Your task to perform on an android device: Add "bose soundlink" to the cart on target.com, then select checkout. Image 0: 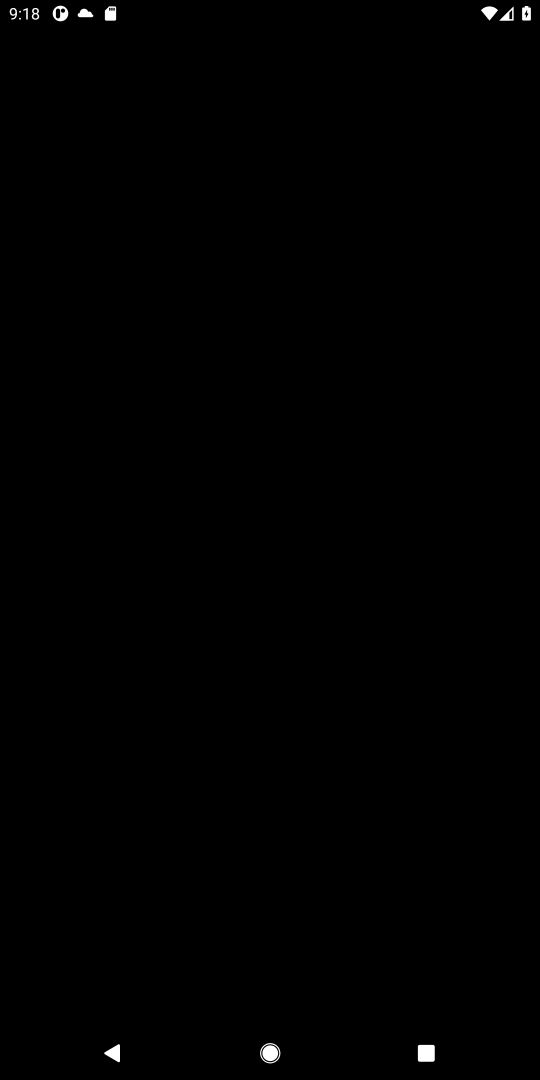
Step 0: press home button
Your task to perform on an android device: Add "bose soundlink" to the cart on target.com, then select checkout. Image 1: 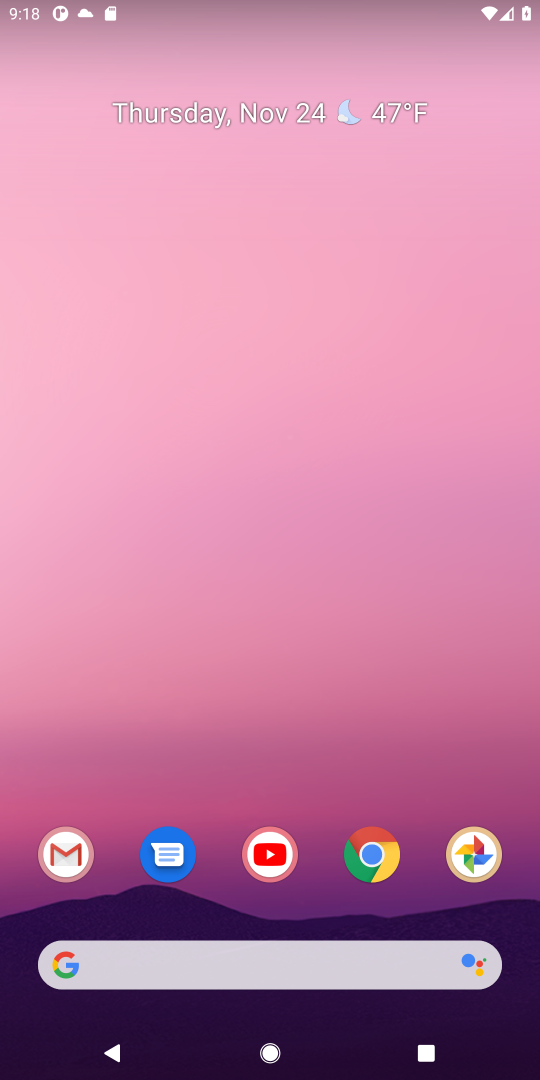
Step 1: click (372, 857)
Your task to perform on an android device: Add "bose soundlink" to the cart on target.com, then select checkout. Image 2: 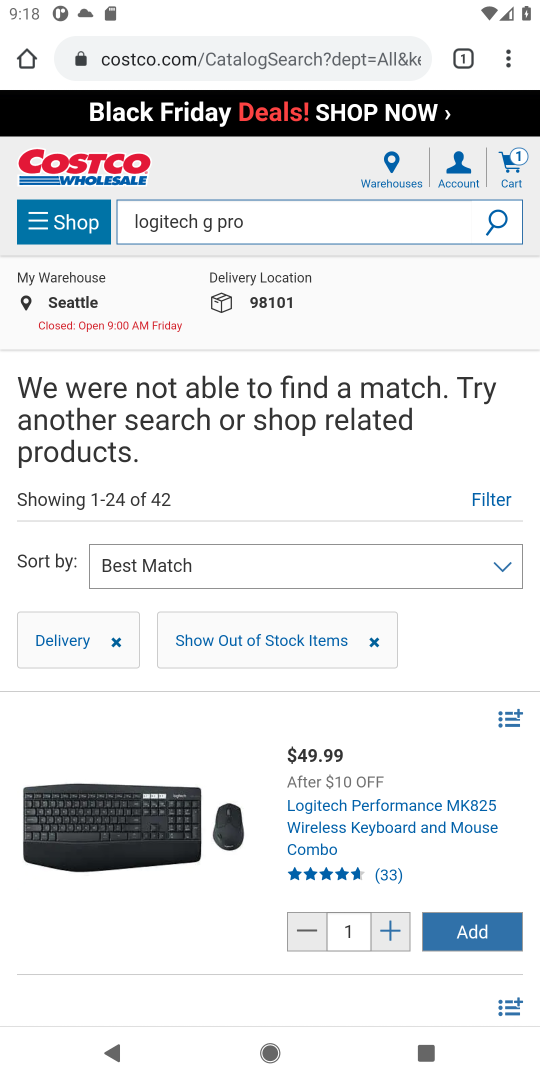
Step 2: click (165, 63)
Your task to perform on an android device: Add "bose soundlink" to the cart on target.com, then select checkout. Image 3: 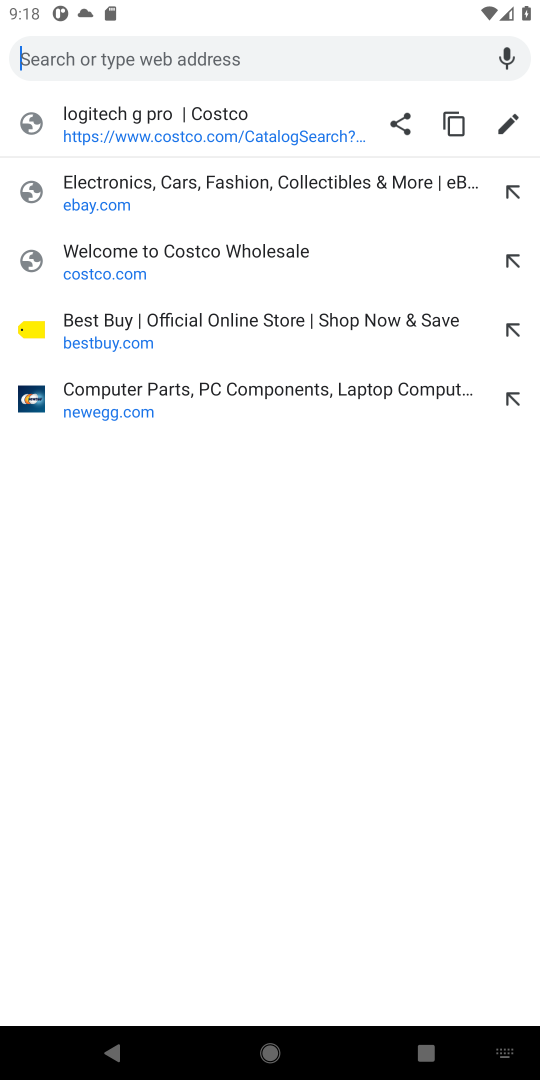
Step 3: type "target.com"
Your task to perform on an android device: Add "bose soundlink" to the cart on target.com, then select checkout. Image 4: 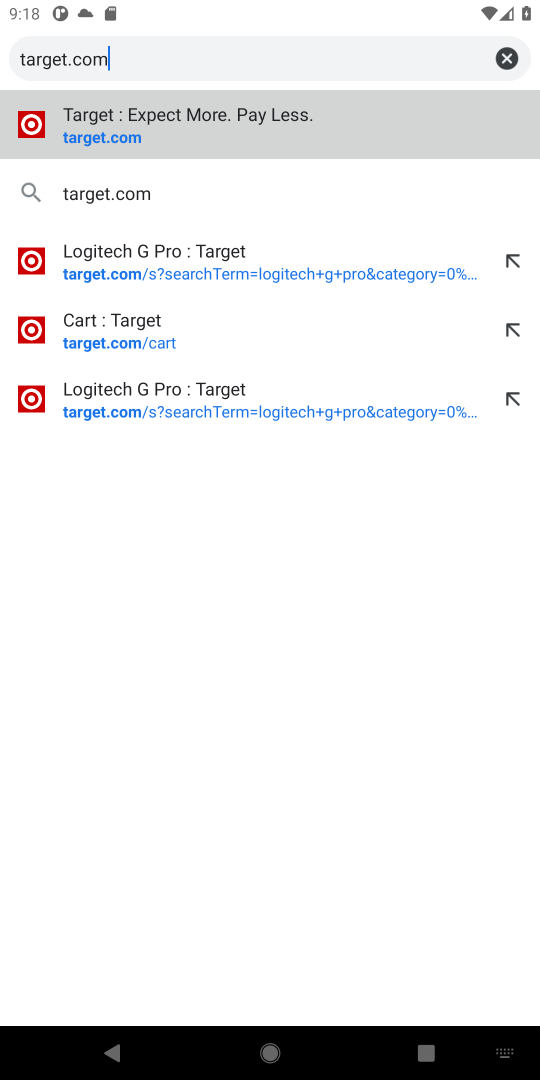
Step 4: click (87, 128)
Your task to perform on an android device: Add "bose soundlink" to the cart on target.com, then select checkout. Image 5: 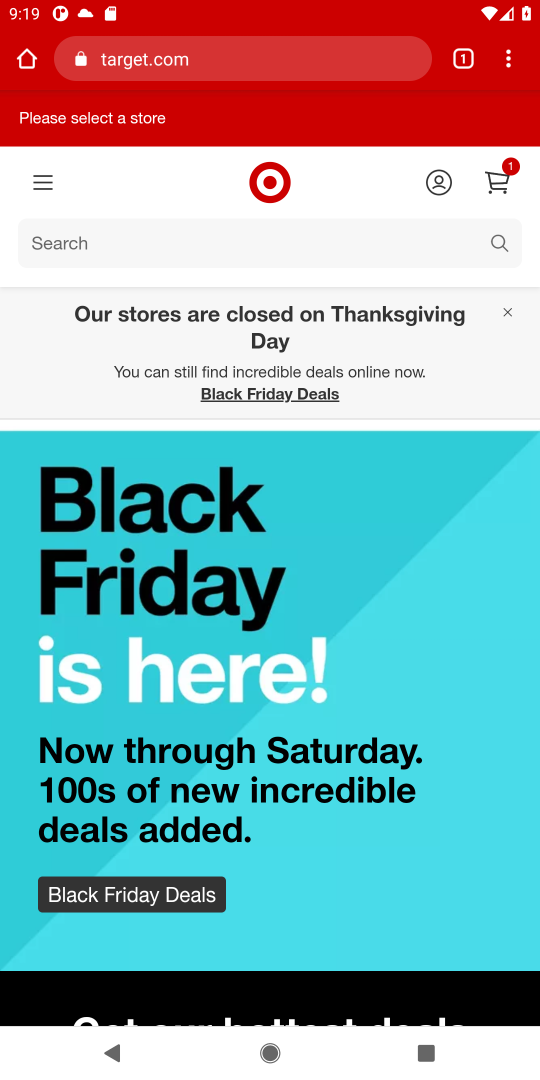
Step 5: click (498, 240)
Your task to perform on an android device: Add "bose soundlink" to the cart on target.com, then select checkout. Image 6: 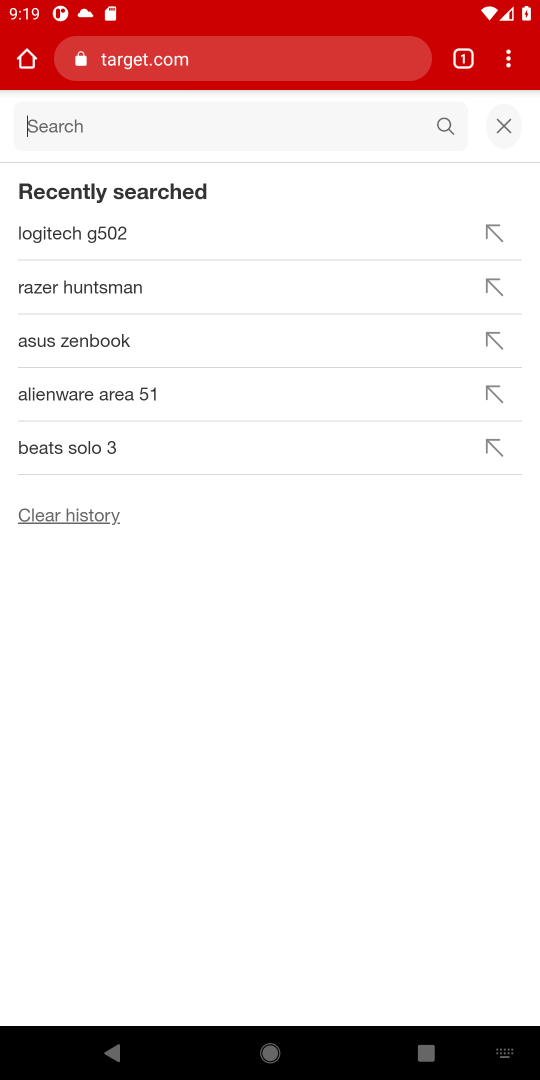
Step 6: click (498, 240)
Your task to perform on an android device: Add "bose soundlink" to the cart on target.com, then select checkout. Image 7: 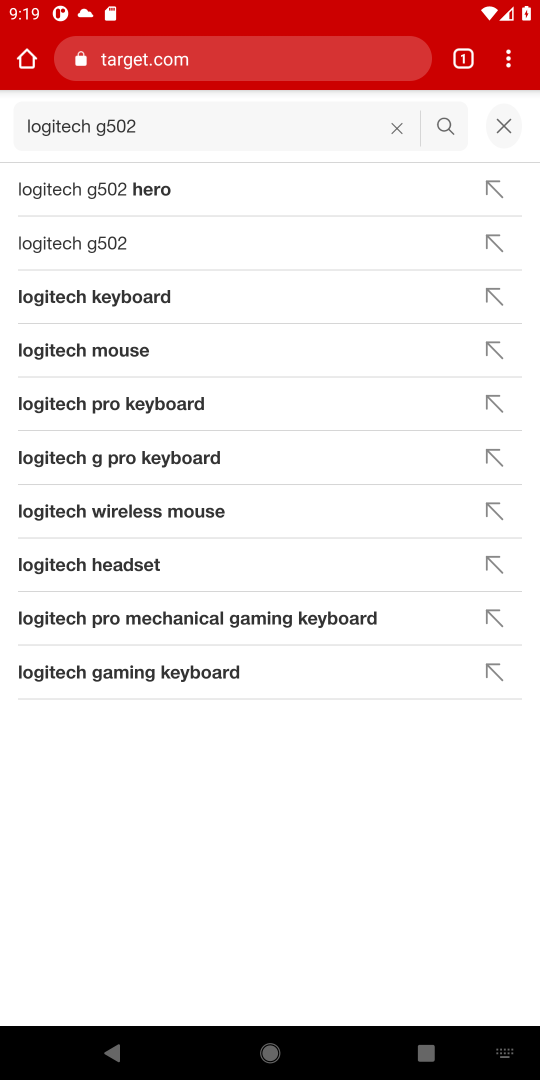
Step 7: click (389, 126)
Your task to perform on an android device: Add "bose soundlink" to the cart on target.com, then select checkout. Image 8: 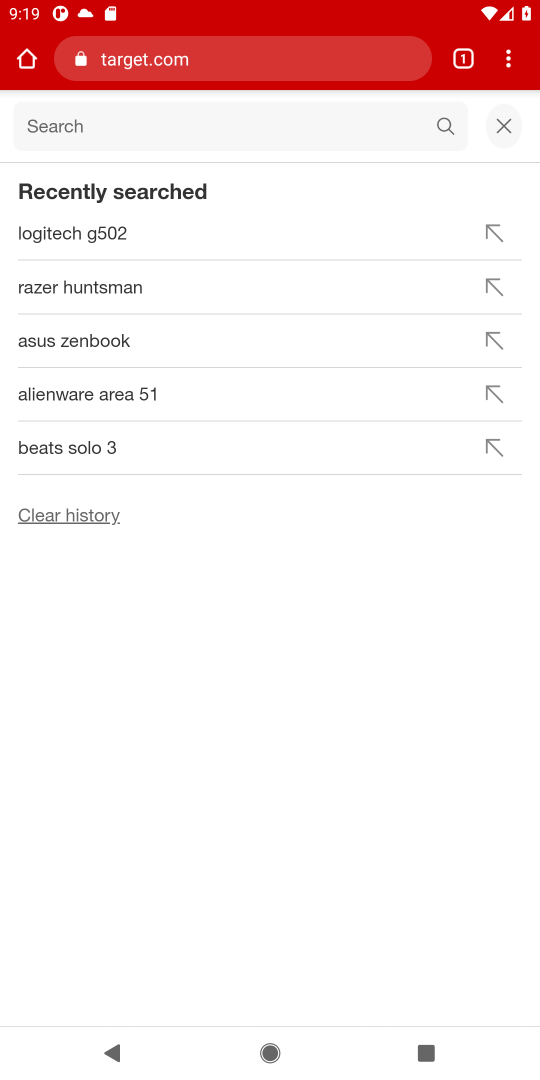
Step 8: click (38, 132)
Your task to perform on an android device: Add "bose soundlink" to the cart on target.com, then select checkout. Image 9: 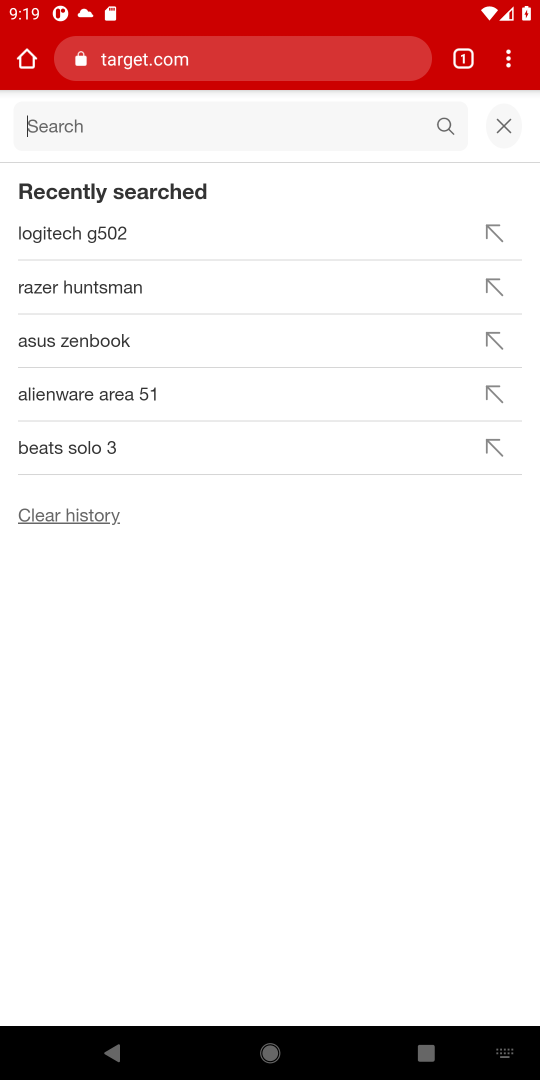
Step 9: type "bose soundlink"
Your task to perform on an android device: Add "bose soundlink" to the cart on target.com, then select checkout. Image 10: 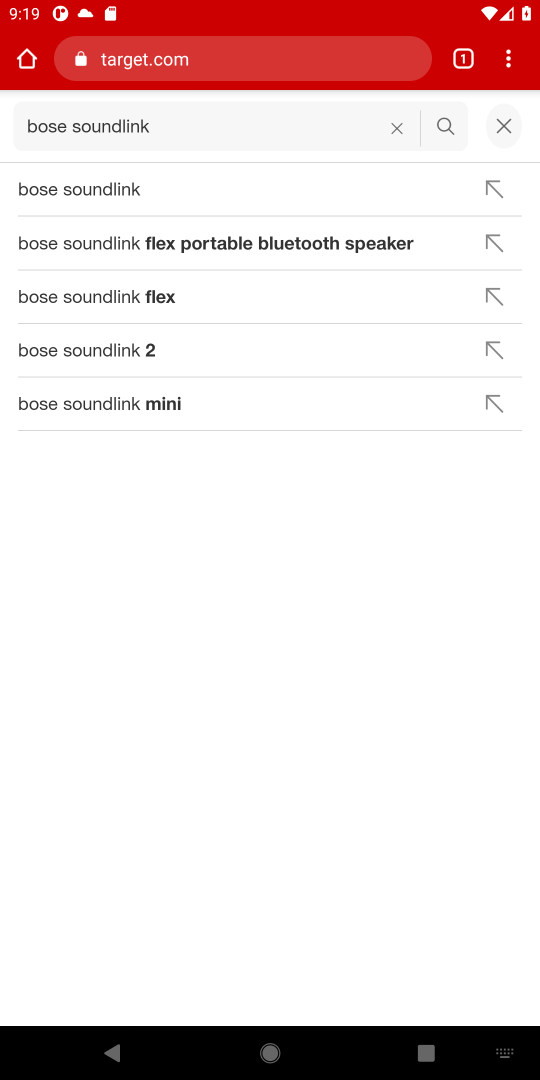
Step 10: click (81, 191)
Your task to perform on an android device: Add "bose soundlink" to the cart on target.com, then select checkout. Image 11: 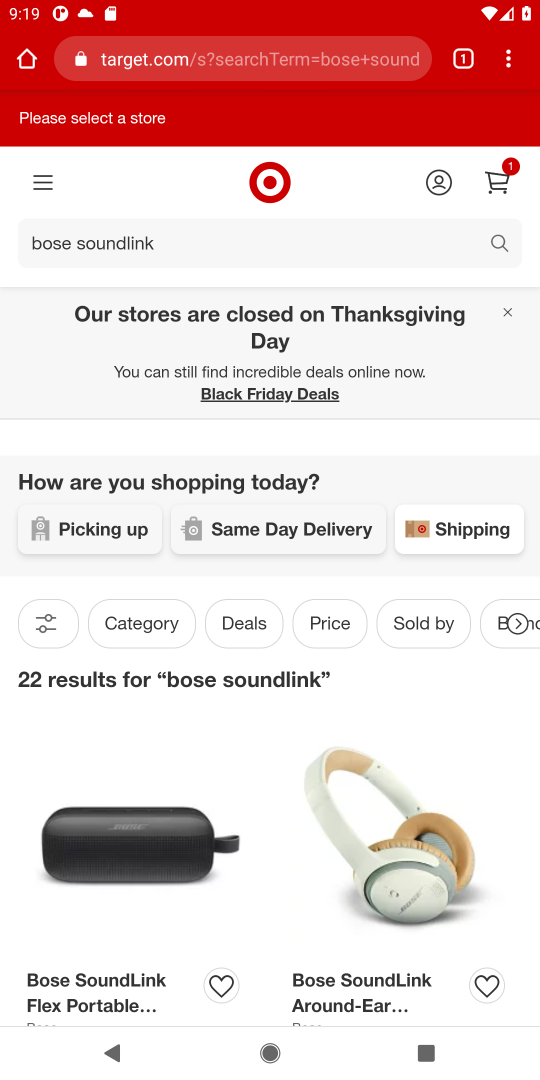
Step 11: drag from (255, 739) to (287, 511)
Your task to perform on an android device: Add "bose soundlink" to the cart on target.com, then select checkout. Image 12: 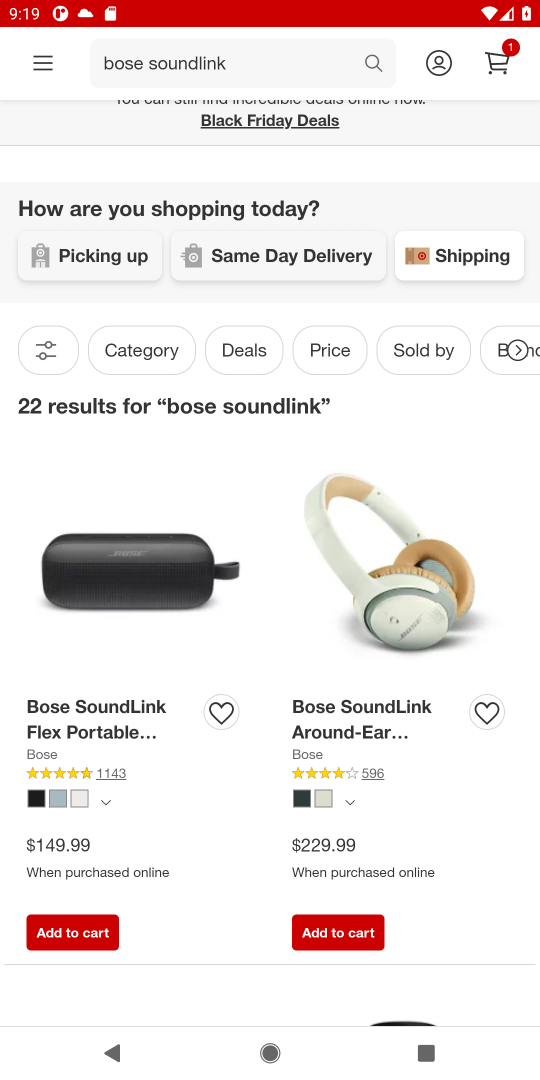
Step 12: click (65, 928)
Your task to perform on an android device: Add "bose soundlink" to the cart on target.com, then select checkout. Image 13: 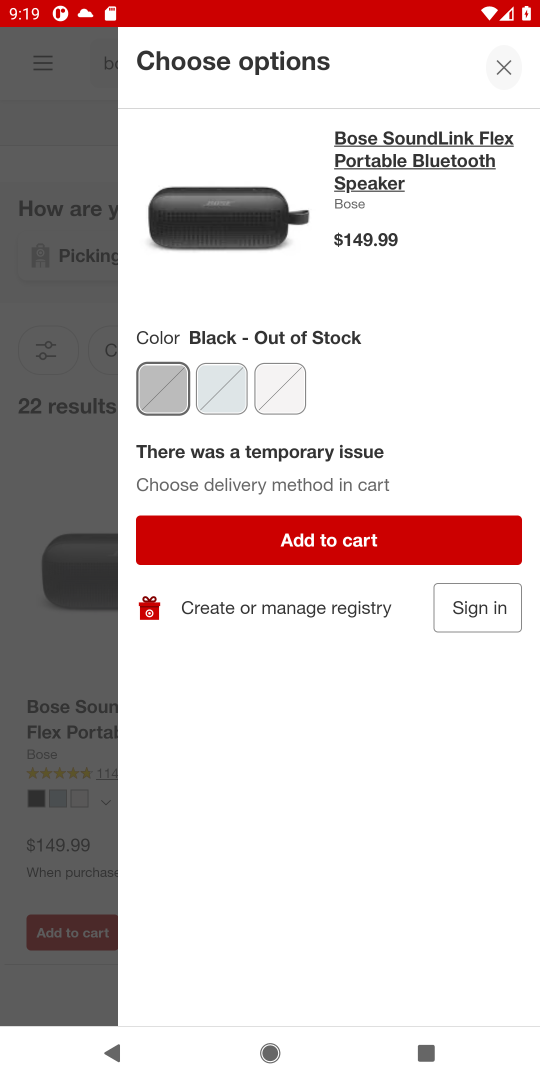
Step 13: click (317, 538)
Your task to perform on an android device: Add "bose soundlink" to the cart on target.com, then select checkout. Image 14: 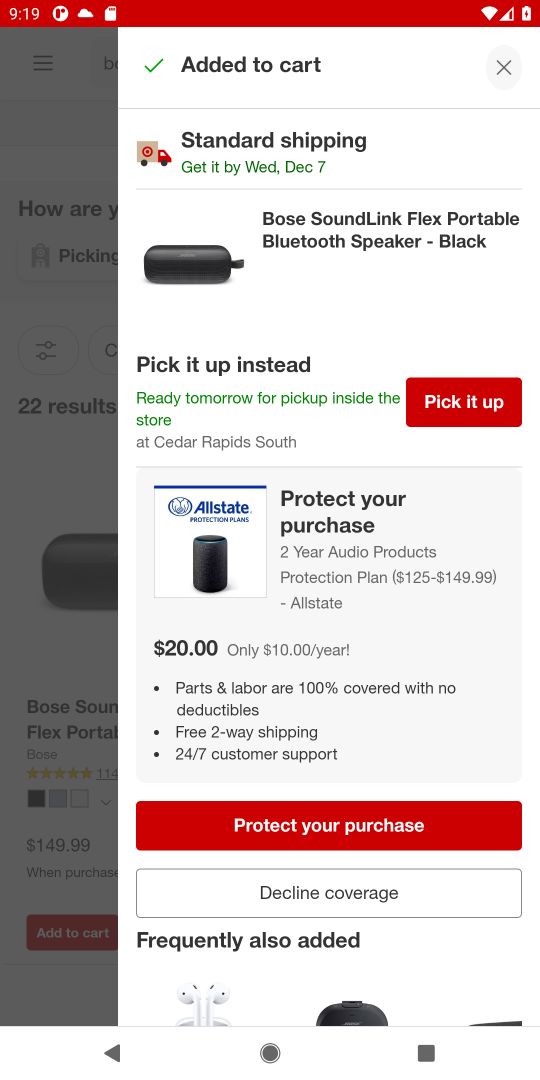
Step 14: click (503, 72)
Your task to perform on an android device: Add "bose soundlink" to the cart on target.com, then select checkout. Image 15: 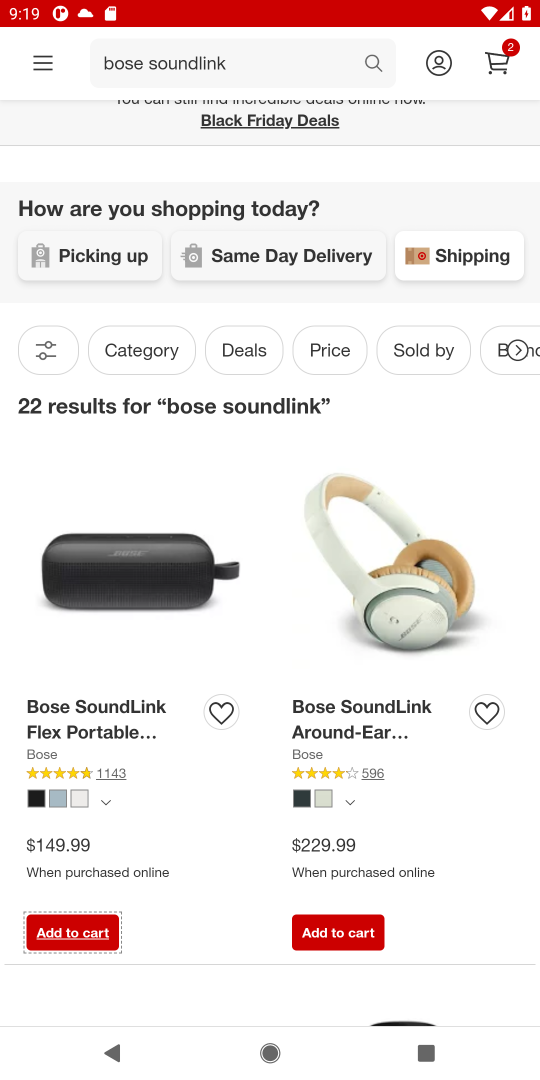
Step 15: click (503, 72)
Your task to perform on an android device: Add "bose soundlink" to the cart on target.com, then select checkout. Image 16: 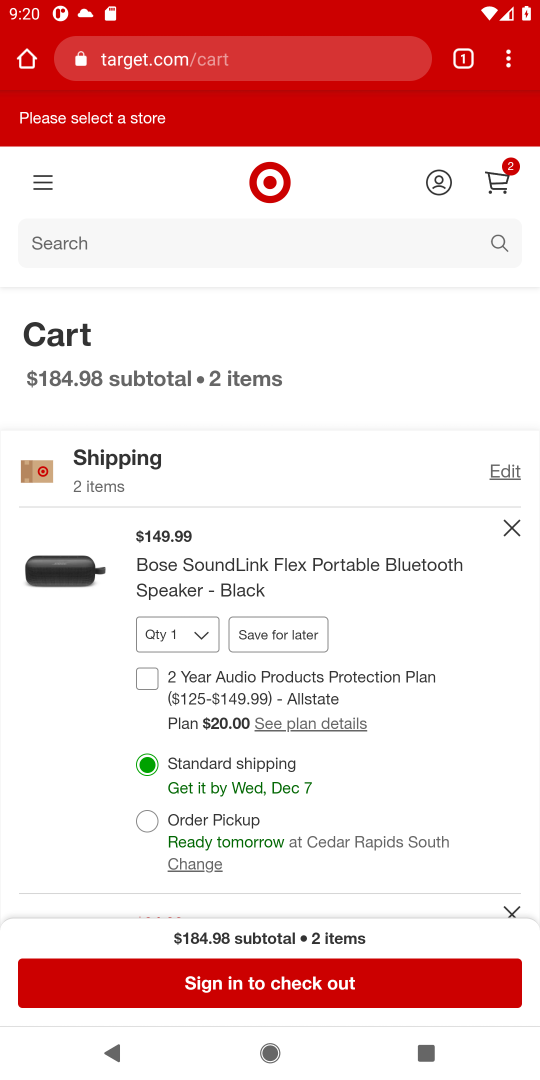
Step 16: click (287, 988)
Your task to perform on an android device: Add "bose soundlink" to the cart on target.com, then select checkout. Image 17: 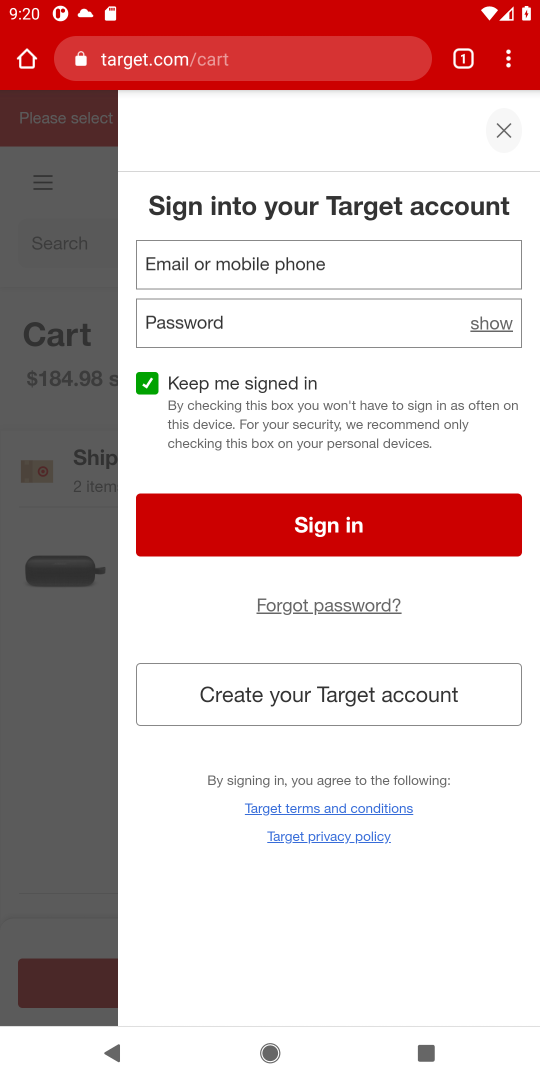
Step 17: task complete